Your task to perform on an android device: Open my contact list Image 0: 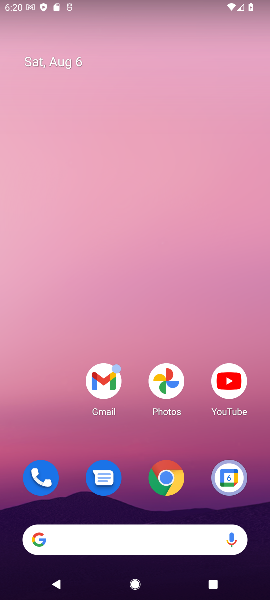
Step 0: drag from (133, 504) to (78, 24)
Your task to perform on an android device: Open my contact list Image 1: 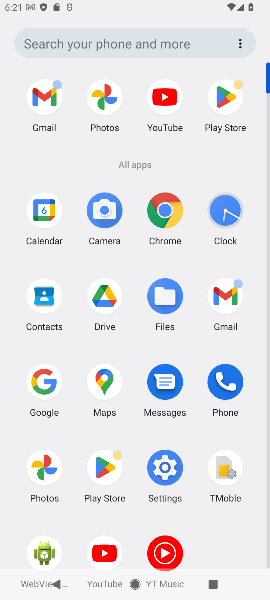
Step 1: click (52, 317)
Your task to perform on an android device: Open my contact list Image 2: 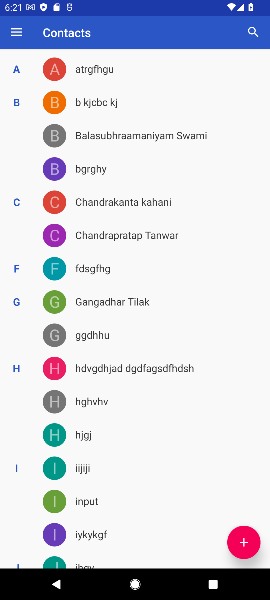
Step 2: task complete